Your task to perform on an android device: Open Chrome and go to settings Image 0: 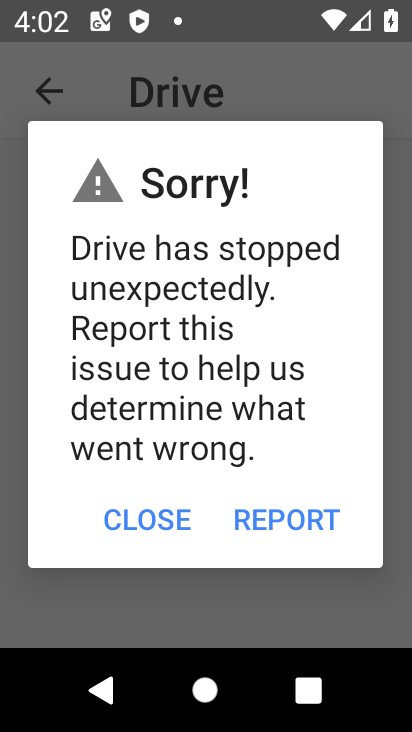
Step 0: press home button
Your task to perform on an android device: Open Chrome and go to settings Image 1: 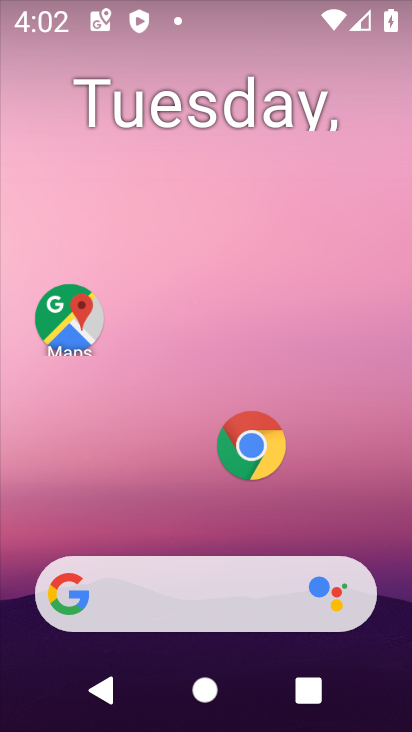
Step 1: click (261, 459)
Your task to perform on an android device: Open Chrome and go to settings Image 2: 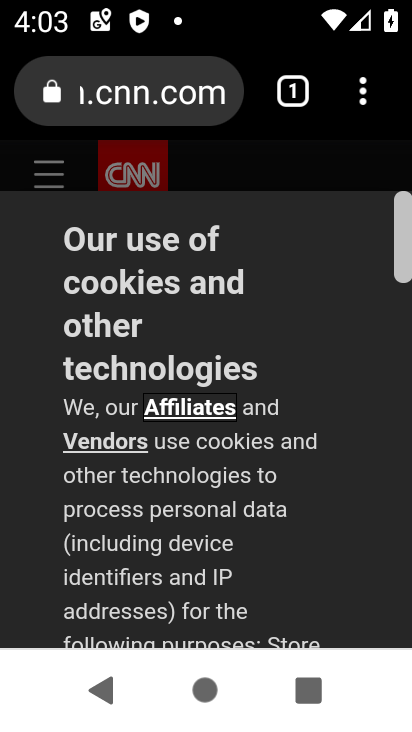
Step 2: click (366, 109)
Your task to perform on an android device: Open Chrome and go to settings Image 3: 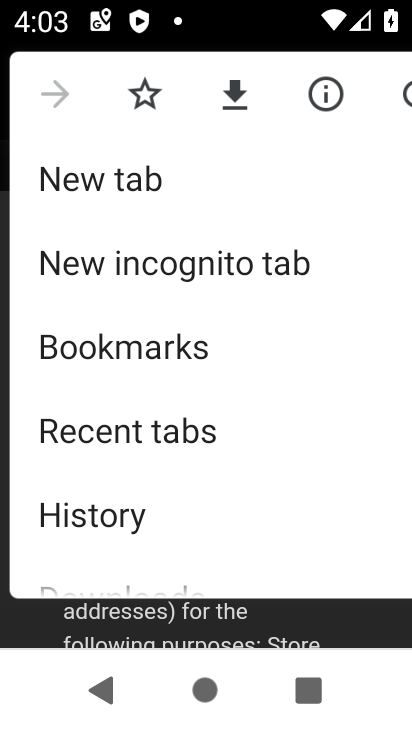
Step 3: drag from (164, 541) to (232, 149)
Your task to perform on an android device: Open Chrome and go to settings Image 4: 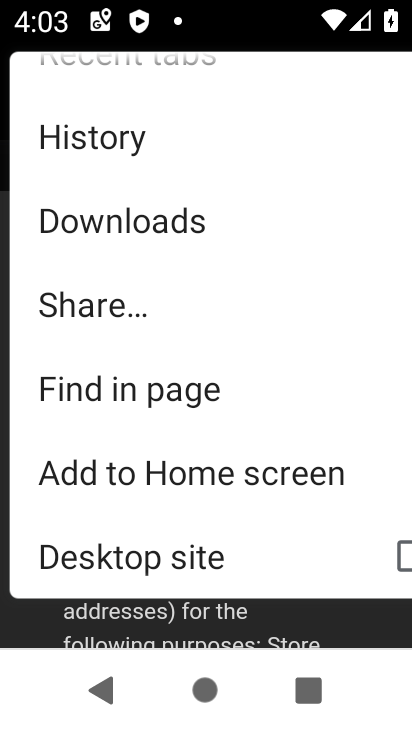
Step 4: drag from (149, 475) to (228, 54)
Your task to perform on an android device: Open Chrome and go to settings Image 5: 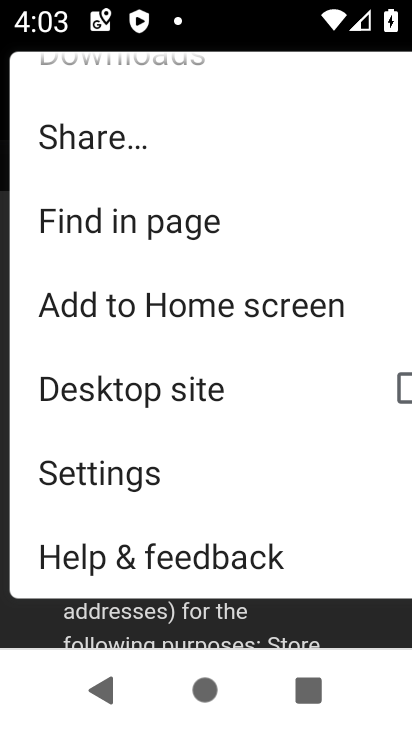
Step 5: click (107, 485)
Your task to perform on an android device: Open Chrome and go to settings Image 6: 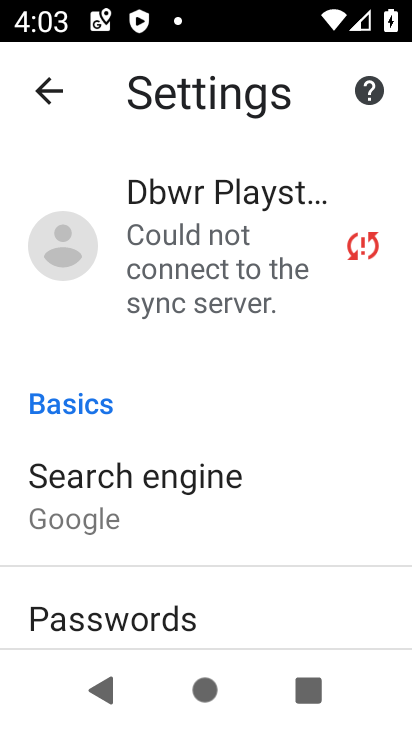
Step 6: task complete